Your task to perform on an android device: What's the weather going to be tomorrow? Image 0: 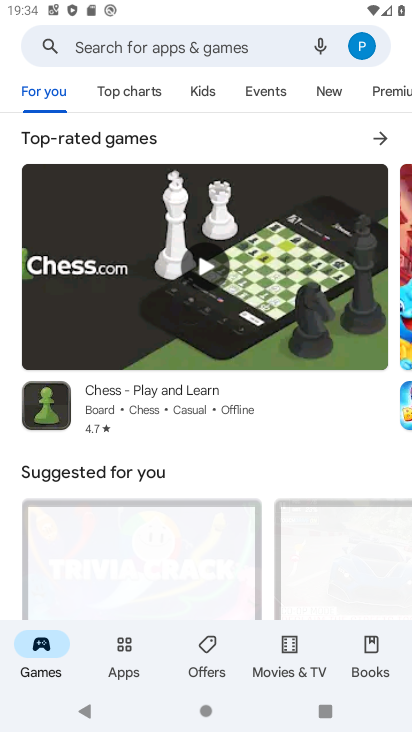
Step 0: press home button
Your task to perform on an android device: What's the weather going to be tomorrow? Image 1: 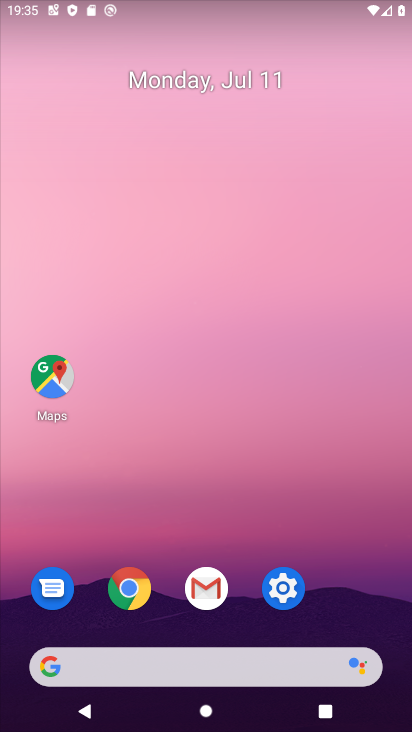
Step 1: click (169, 669)
Your task to perform on an android device: What's the weather going to be tomorrow? Image 2: 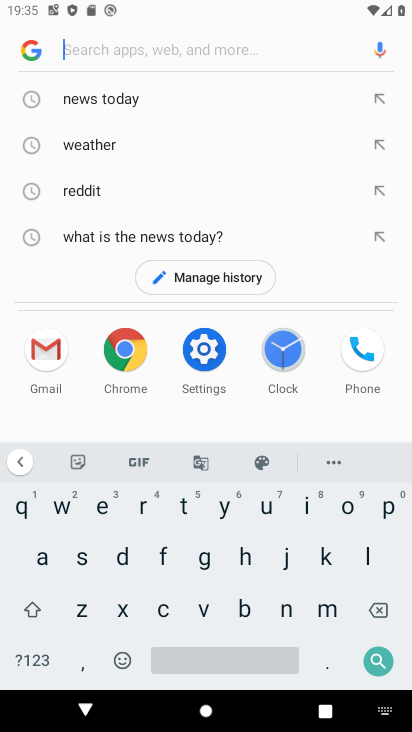
Step 2: click (106, 152)
Your task to perform on an android device: What's the weather going to be tomorrow? Image 3: 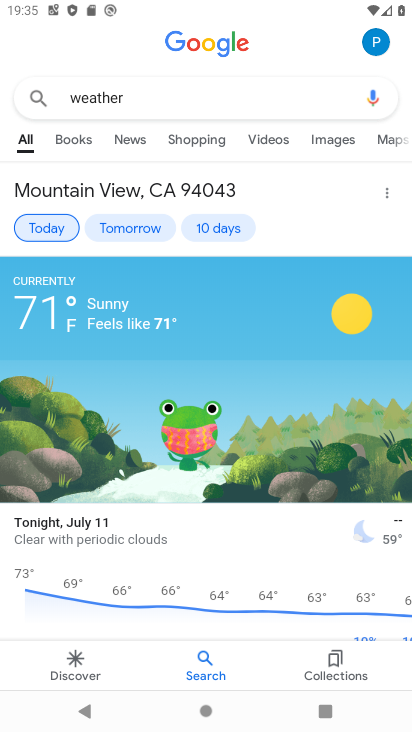
Step 3: click (140, 224)
Your task to perform on an android device: What's the weather going to be tomorrow? Image 4: 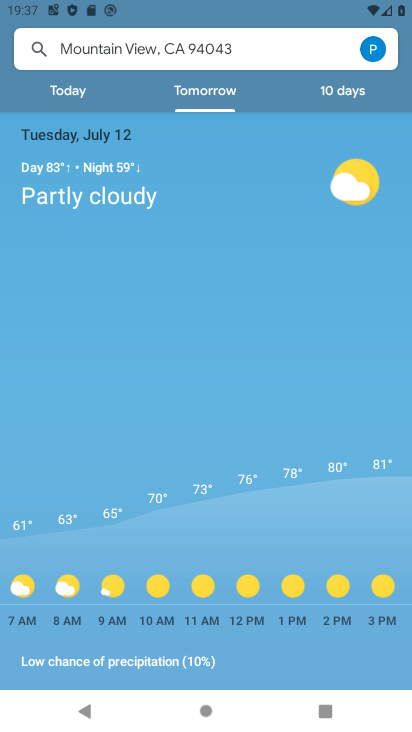
Step 4: task complete